Your task to perform on an android device: change the upload size in google photos Image 0: 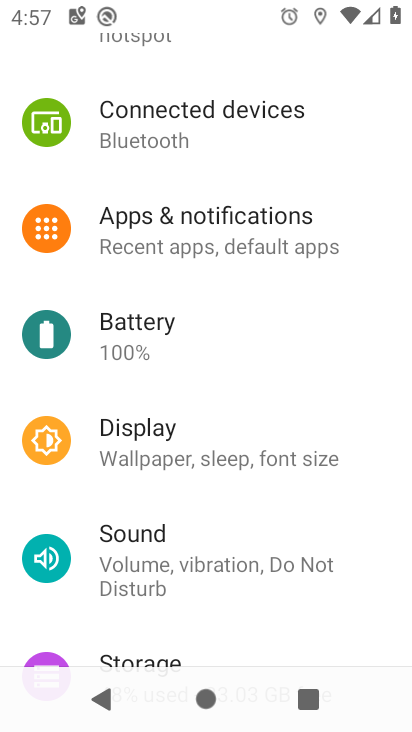
Step 0: press home button
Your task to perform on an android device: change the upload size in google photos Image 1: 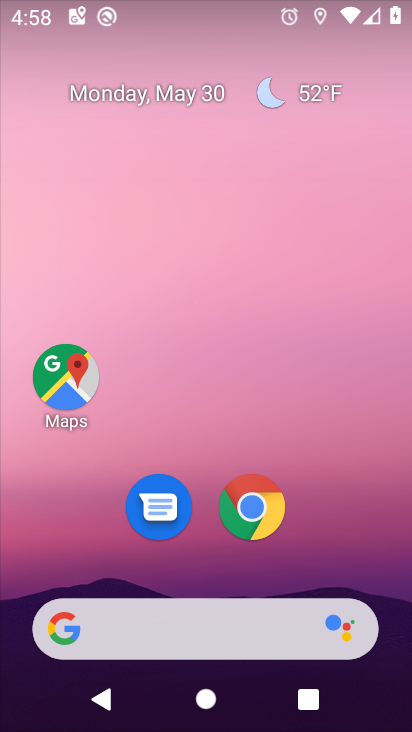
Step 1: press home button
Your task to perform on an android device: change the upload size in google photos Image 2: 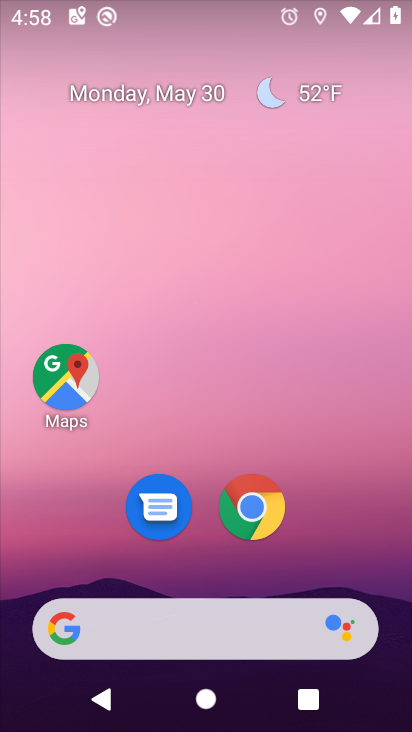
Step 2: drag from (368, 527) to (340, 79)
Your task to perform on an android device: change the upload size in google photos Image 3: 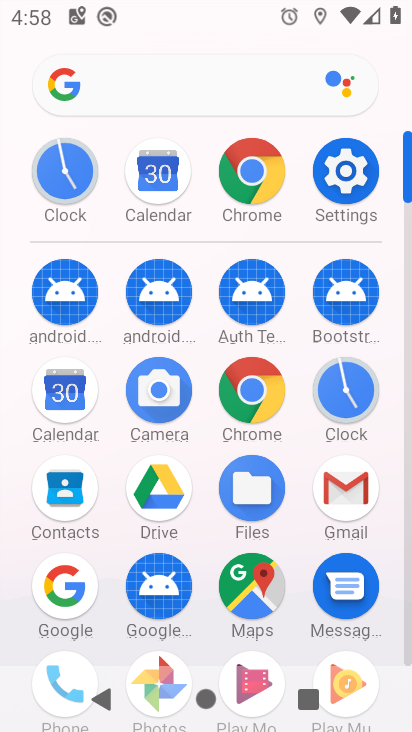
Step 3: click (407, 614)
Your task to perform on an android device: change the upload size in google photos Image 4: 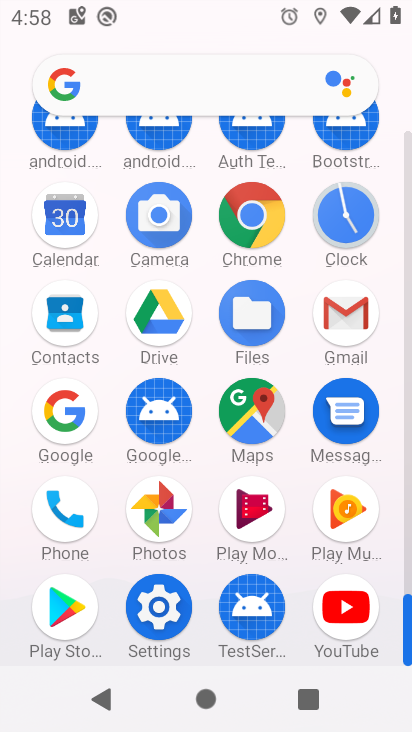
Step 4: click (109, 516)
Your task to perform on an android device: change the upload size in google photos Image 5: 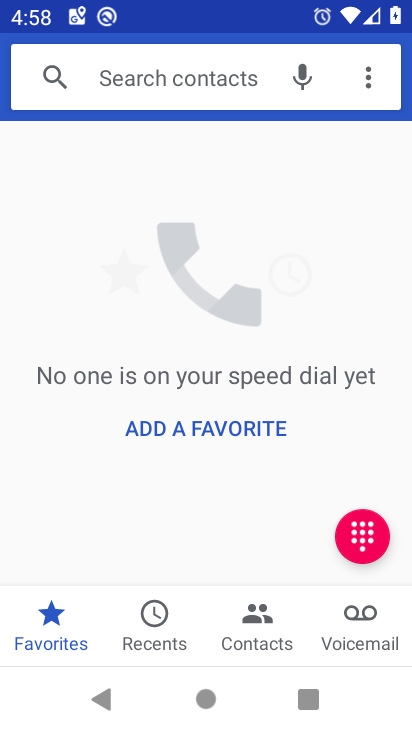
Step 5: press home button
Your task to perform on an android device: change the upload size in google photos Image 6: 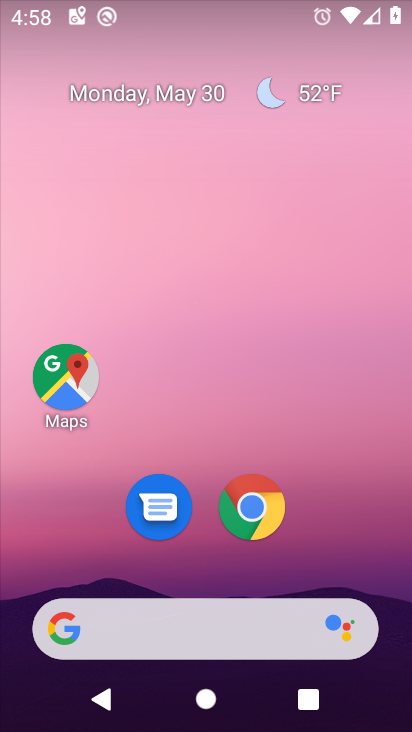
Step 6: drag from (329, 552) to (359, 102)
Your task to perform on an android device: change the upload size in google photos Image 7: 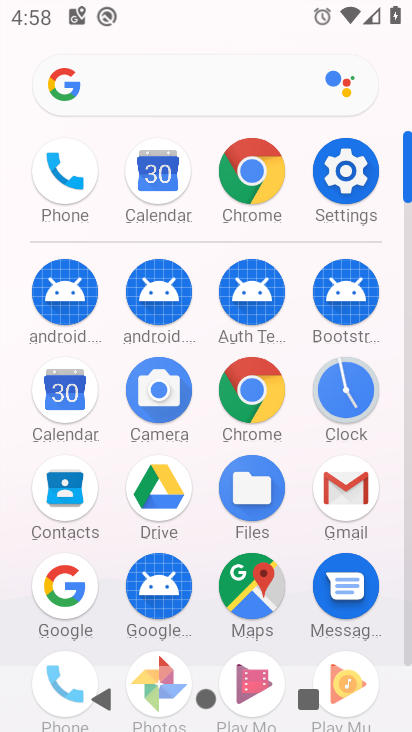
Step 7: click (408, 654)
Your task to perform on an android device: change the upload size in google photos Image 8: 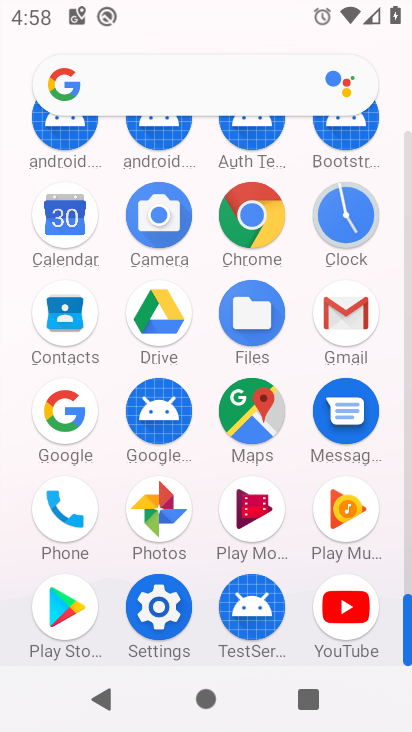
Step 8: click (179, 491)
Your task to perform on an android device: change the upload size in google photos Image 9: 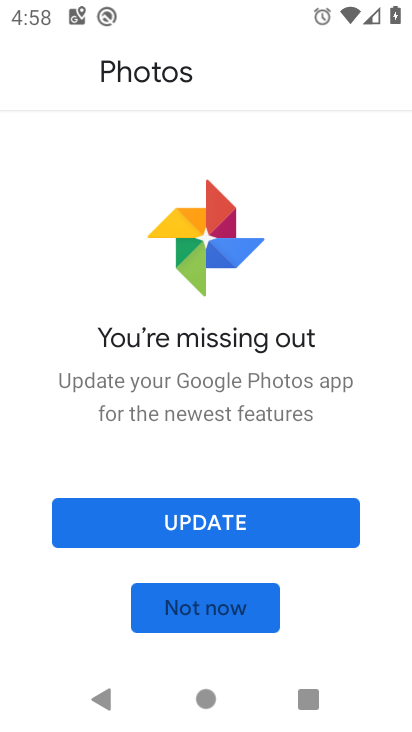
Step 9: click (251, 522)
Your task to perform on an android device: change the upload size in google photos Image 10: 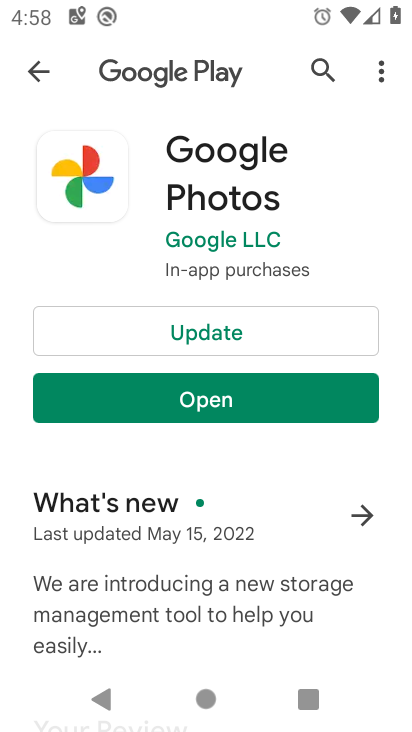
Step 10: click (216, 321)
Your task to perform on an android device: change the upload size in google photos Image 11: 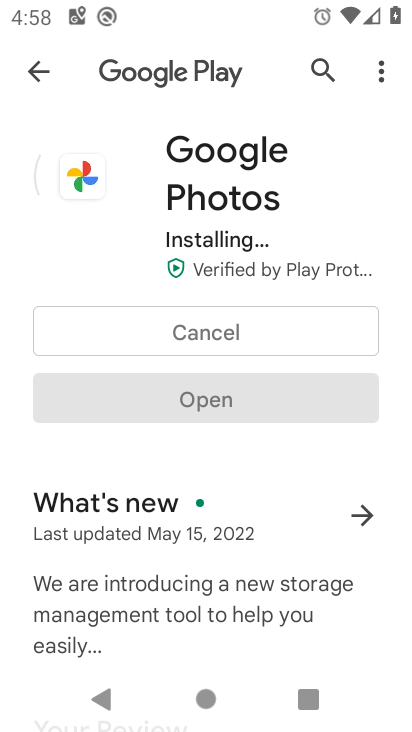
Step 11: click (225, 402)
Your task to perform on an android device: change the upload size in google photos Image 12: 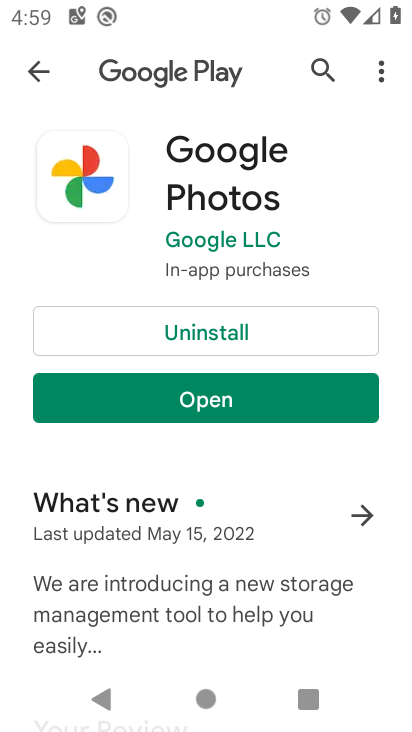
Step 12: click (340, 407)
Your task to perform on an android device: change the upload size in google photos Image 13: 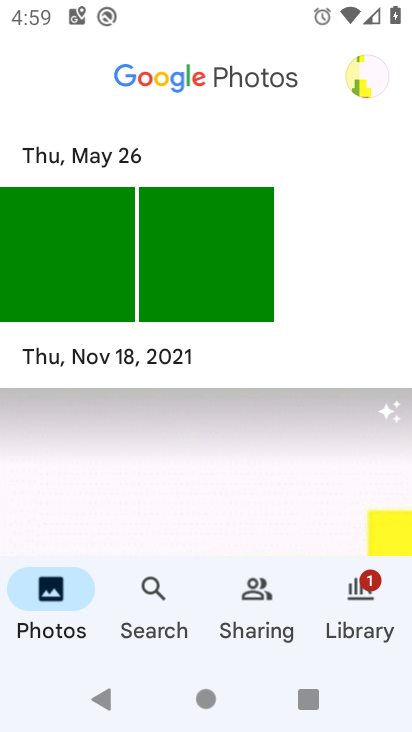
Step 13: click (352, 79)
Your task to perform on an android device: change the upload size in google photos Image 14: 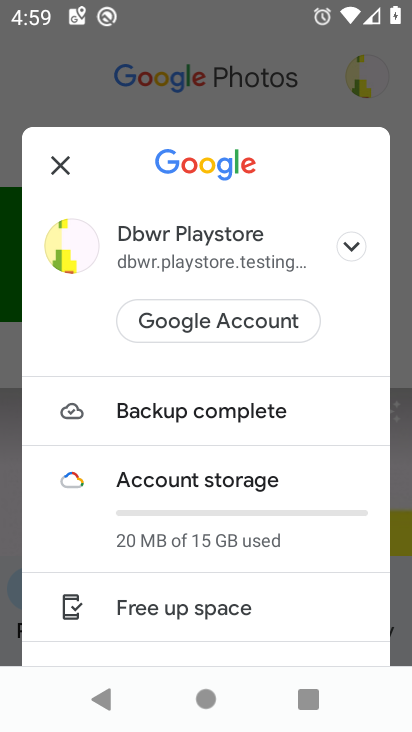
Step 14: drag from (237, 527) to (228, 207)
Your task to perform on an android device: change the upload size in google photos Image 15: 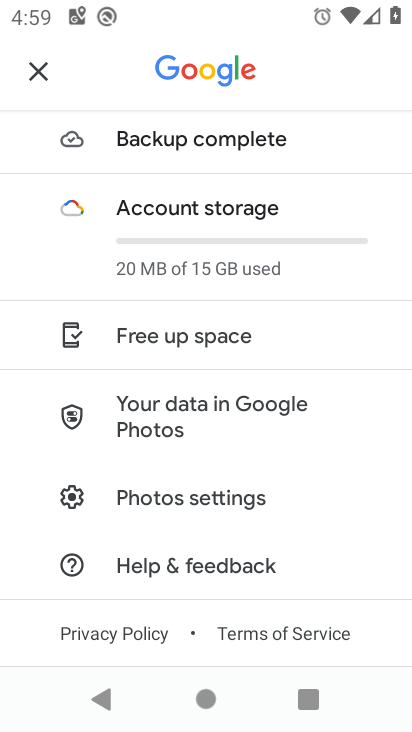
Step 15: click (220, 497)
Your task to perform on an android device: change the upload size in google photos Image 16: 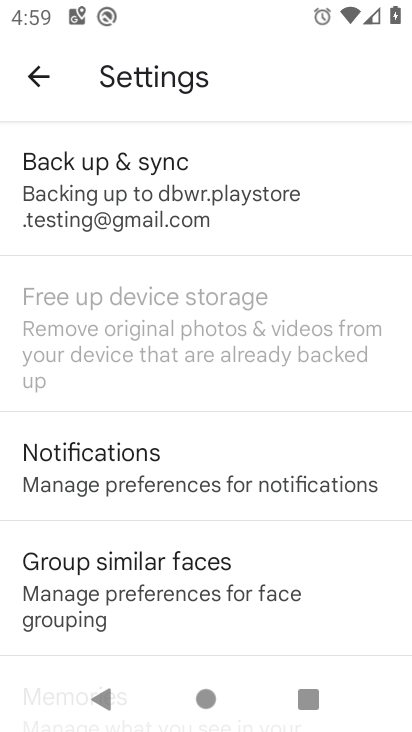
Step 16: click (220, 230)
Your task to perform on an android device: change the upload size in google photos Image 17: 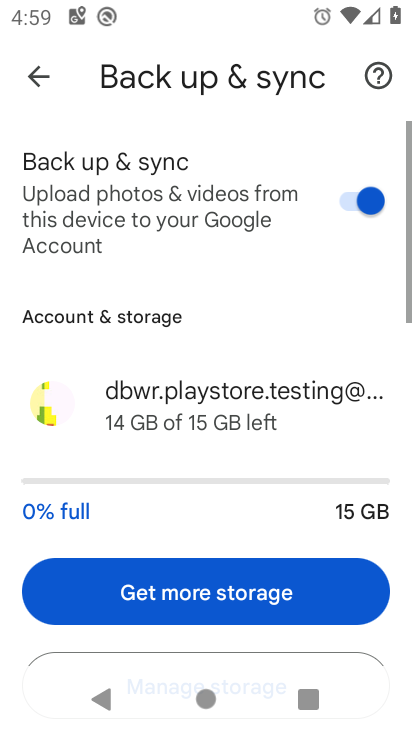
Step 17: drag from (220, 503) to (217, 113)
Your task to perform on an android device: change the upload size in google photos Image 18: 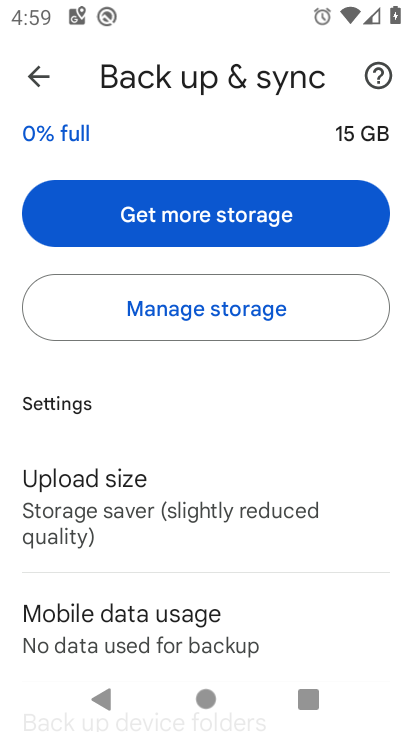
Step 18: click (185, 491)
Your task to perform on an android device: change the upload size in google photos Image 19: 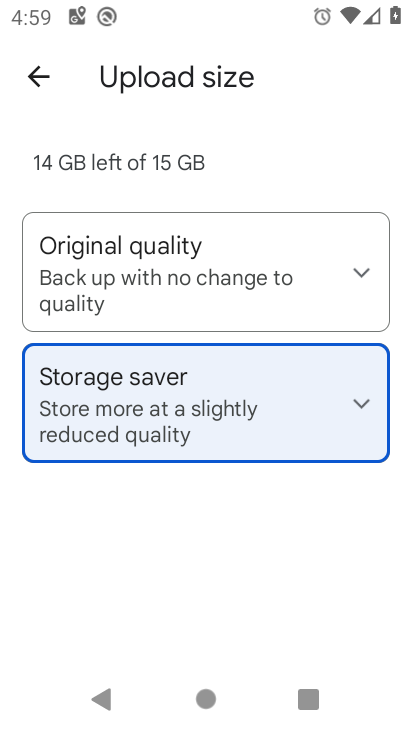
Step 19: click (206, 282)
Your task to perform on an android device: change the upload size in google photos Image 20: 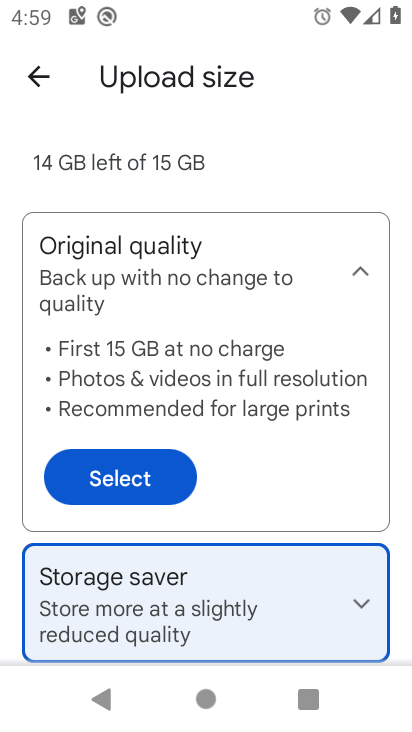
Step 20: click (156, 457)
Your task to perform on an android device: change the upload size in google photos Image 21: 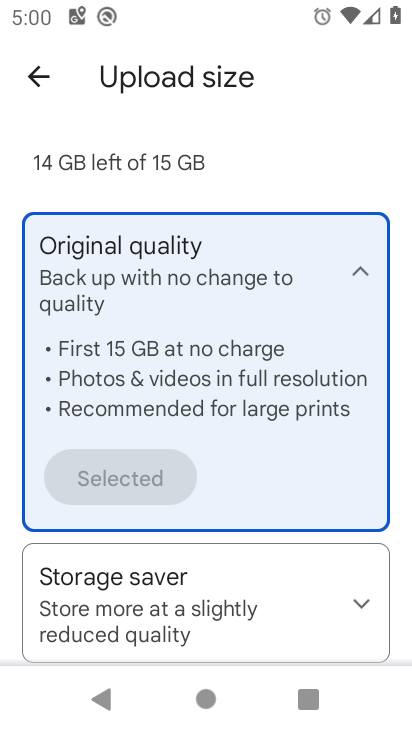
Step 21: task complete